Your task to perform on an android device: Search for vegetarian restaurants on Maps Image 0: 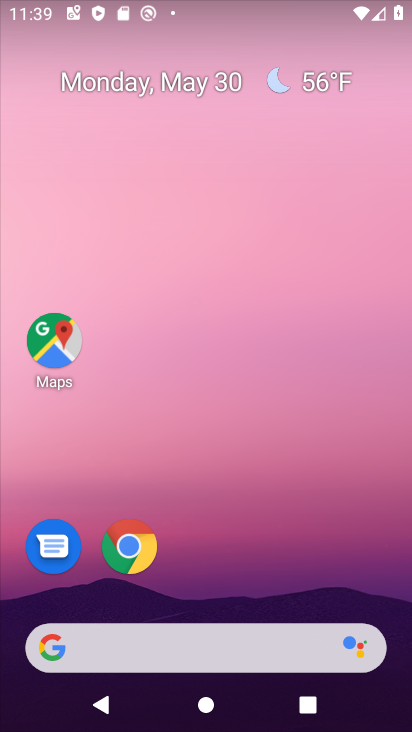
Step 0: click (54, 341)
Your task to perform on an android device: Search for vegetarian restaurants on Maps Image 1: 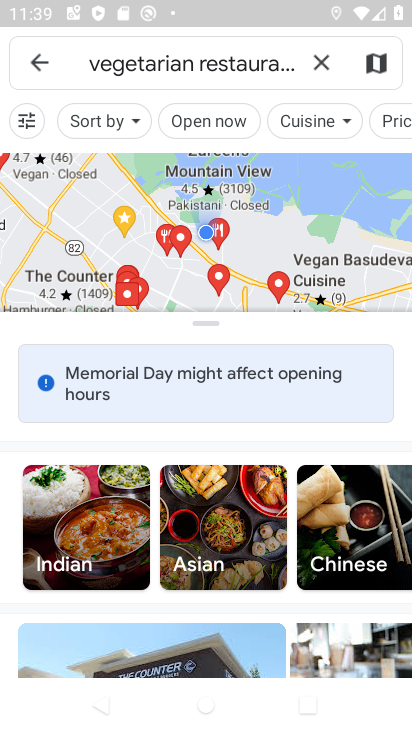
Step 1: task complete